Your task to perform on an android device: turn on showing notifications on the lock screen Image 0: 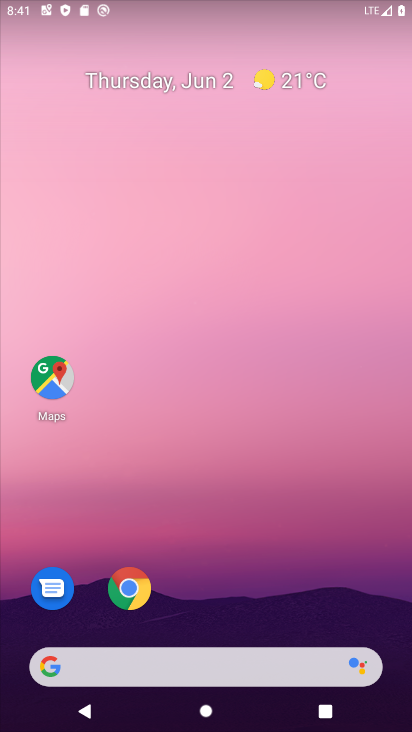
Step 0: drag from (233, 492) to (237, 422)
Your task to perform on an android device: turn on showing notifications on the lock screen Image 1: 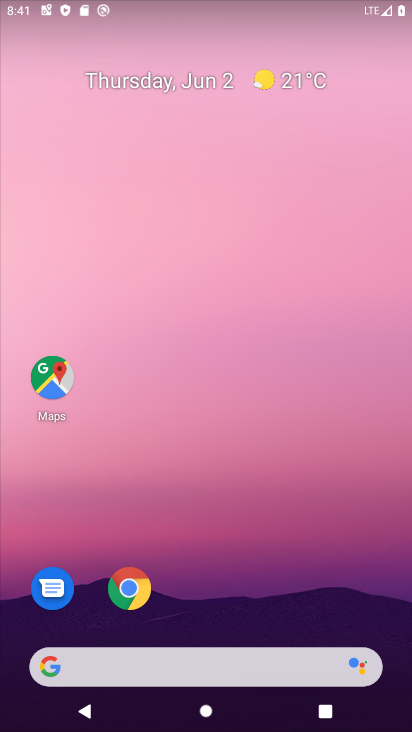
Step 1: drag from (197, 561) to (202, 305)
Your task to perform on an android device: turn on showing notifications on the lock screen Image 2: 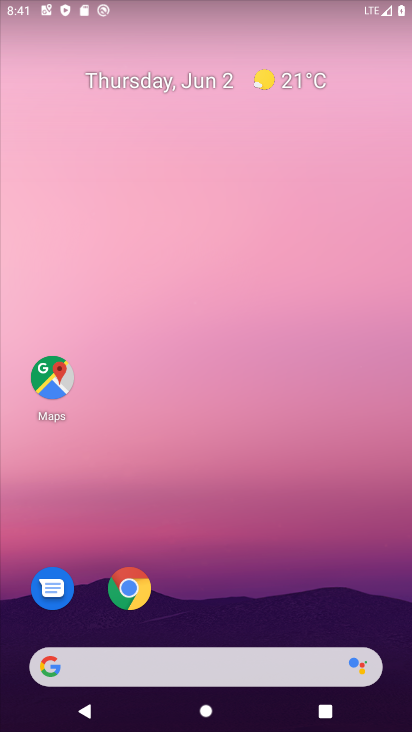
Step 2: drag from (221, 649) to (221, 129)
Your task to perform on an android device: turn on showing notifications on the lock screen Image 3: 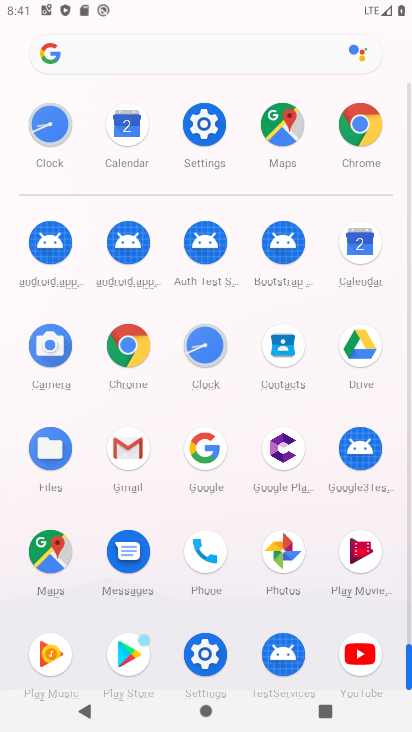
Step 3: click (219, 155)
Your task to perform on an android device: turn on showing notifications on the lock screen Image 4: 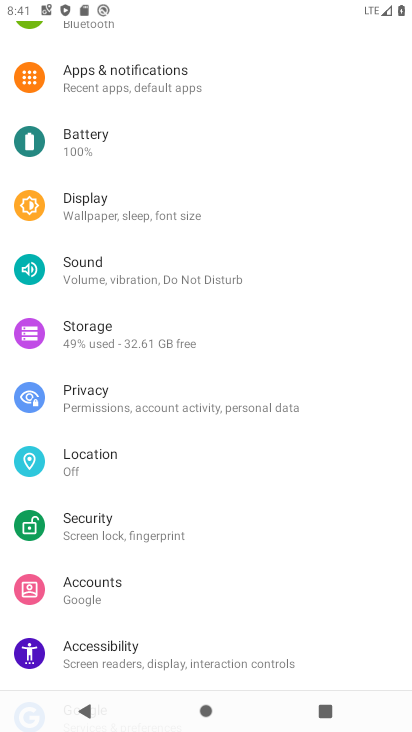
Step 4: drag from (186, 415) to (185, 564)
Your task to perform on an android device: turn on showing notifications on the lock screen Image 5: 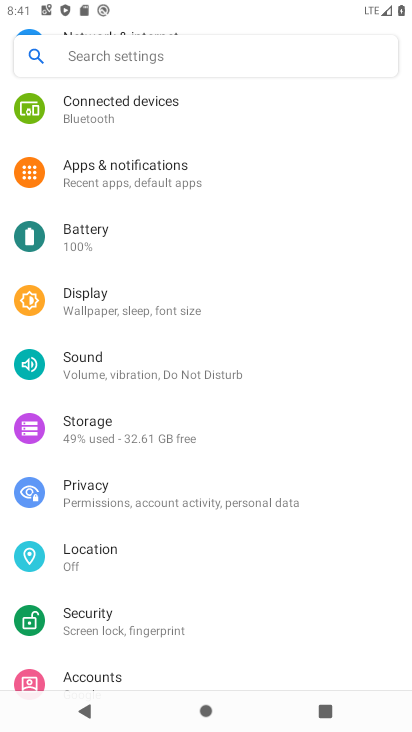
Step 5: click (180, 176)
Your task to perform on an android device: turn on showing notifications on the lock screen Image 6: 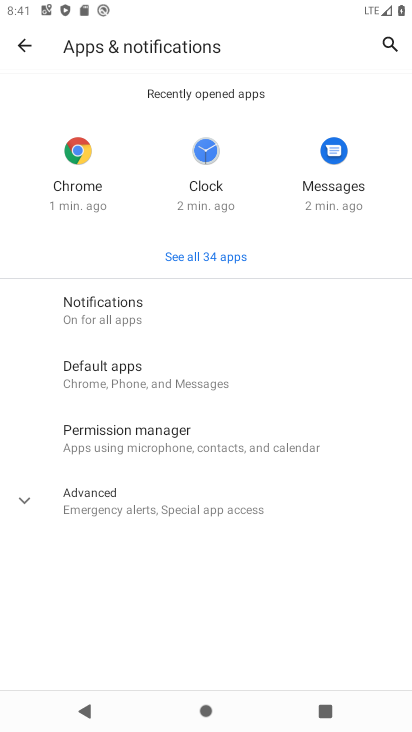
Step 6: click (158, 318)
Your task to perform on an android device: turn on showing notifications on the lock screen Image 7: 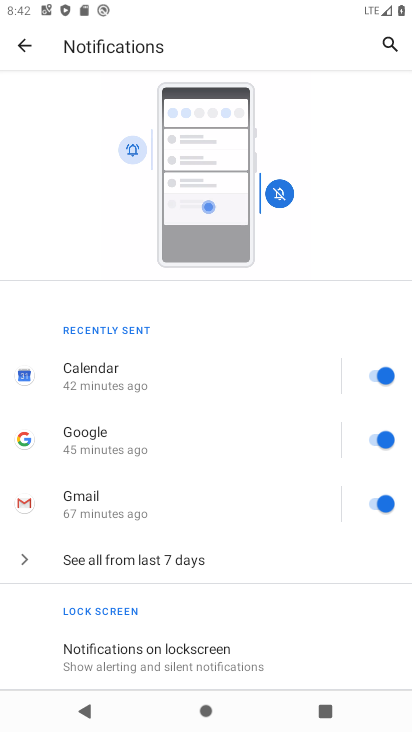
Step 7: click (191, 652)
Your task to perform on an android device: turn on showing notifications on the lock screen Image 8: 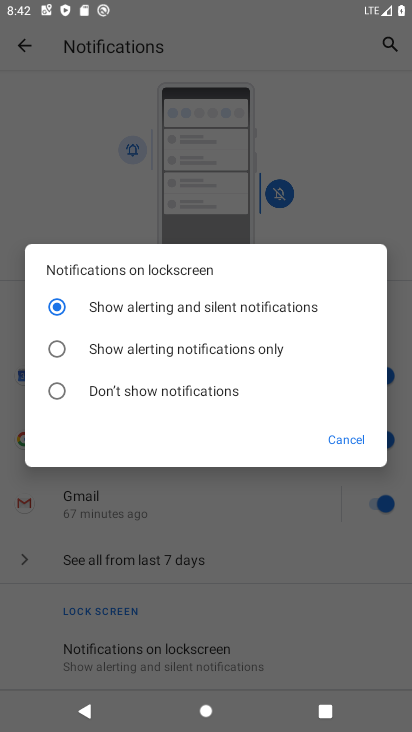
Step 8: task complete